Your task to perform on an android device: delete a single message in the gmail app Image 0: 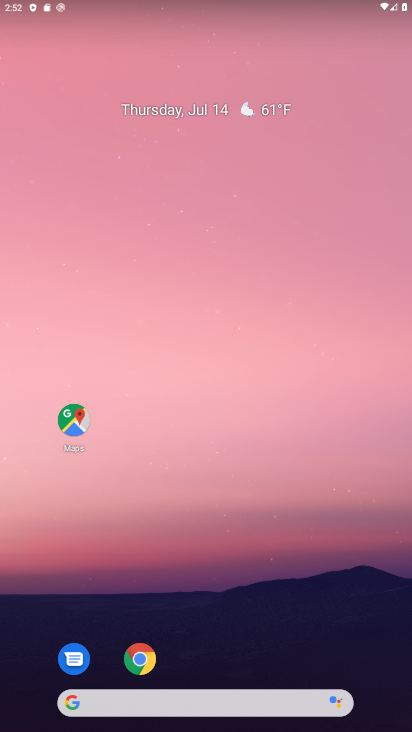
Step 0: drag from (217, 705) to (225, 104)
Your task to perform on an android device: delete a single message in the gmail app Image 1: 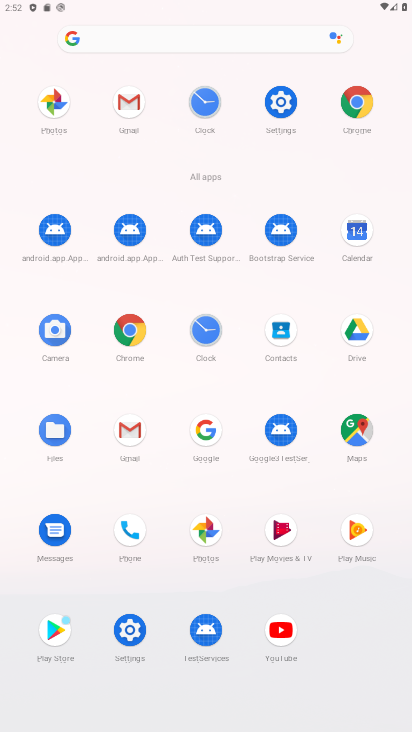
Step 1: click (127, 100)
Your task to perform on an android device: delete a single message in the gmail app Image 2: 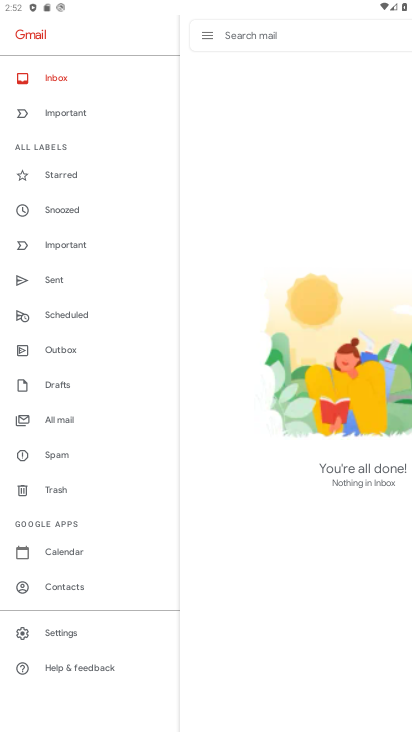
Step 2: click (62, 415)
Your task to perform on an android device: delete a single message in the gmail app Image 3: 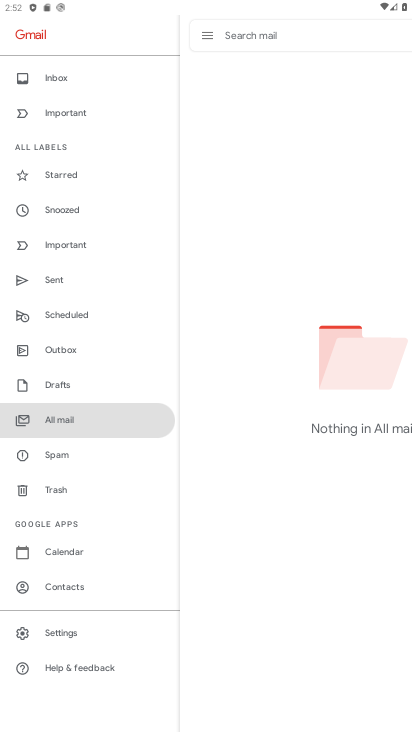
Step 3: click (80, 117)
Your task to perform on an android device: delete a single message in the gmail app Image 4: 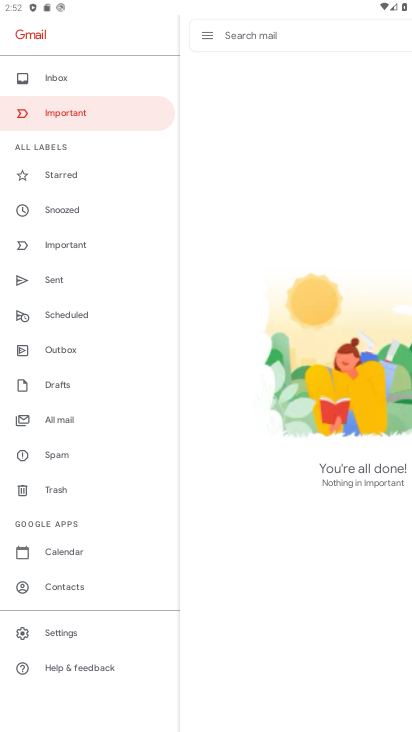
Step 4: click (61, 209)
Your task to perform on an android device: delete a single message in the gmail app Image 5: 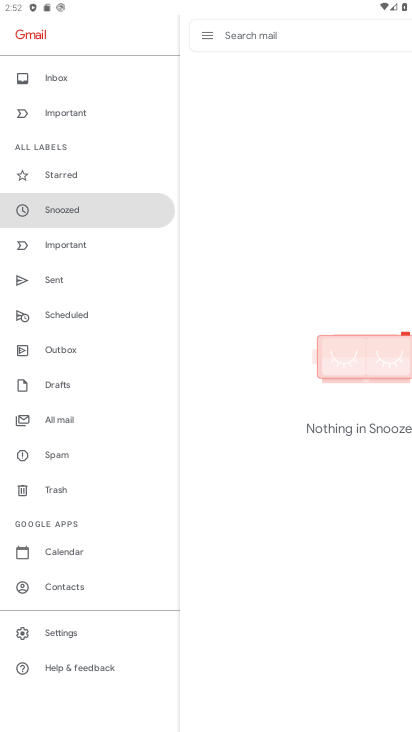
Step 5: click (62, 245)
Your task to perform on an android device: delete a single message in the gmail app Image 6: 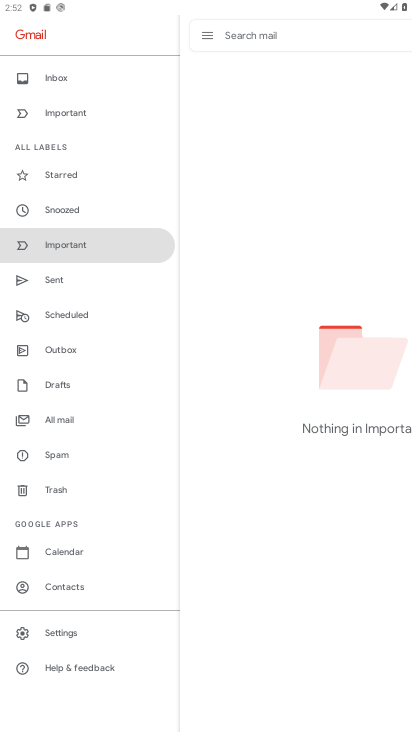
Step 6: click (58, 277)
Your task to perform on an android device: delete a single message in the gmail app Image 7: 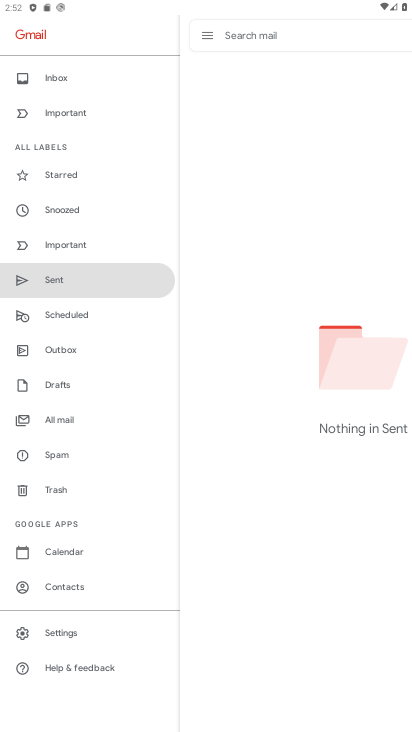
Step 7: click (93, 314)
Your task to perform on an android device: delete a single message in the gmail app Image 8: 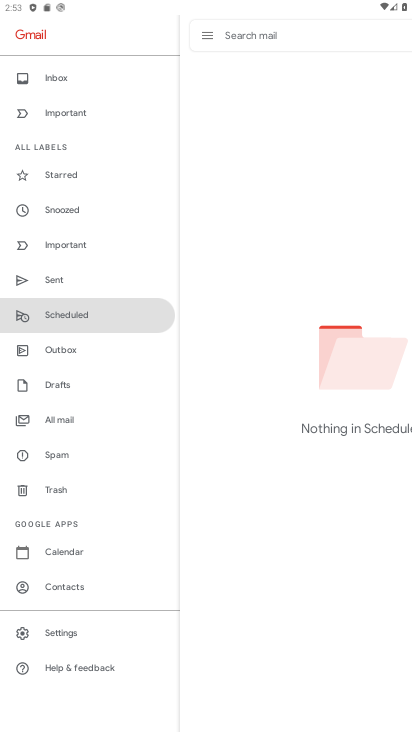
Step 8: click (59, 345)
Your task to perform on an android device: delete a single message in the gmail app Image 9: 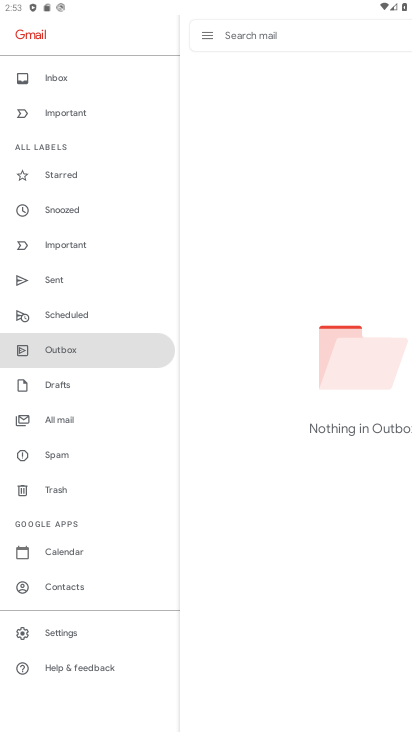
Step 9: click (57, 393)
Your task to perform on an android device: delete a single message in the gmail app Image 10: 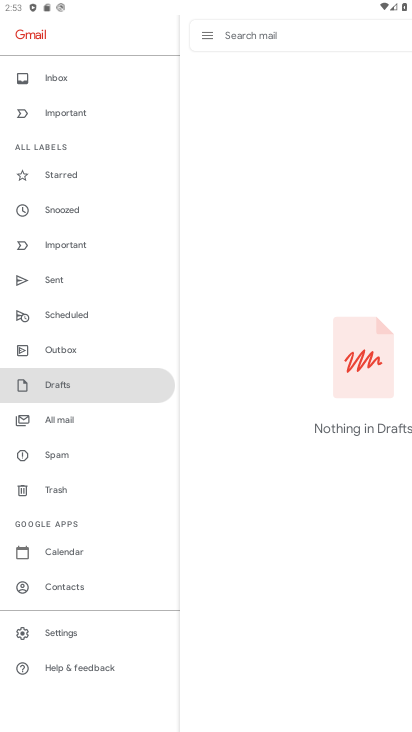
Step 10: click (50, 452)
Your task to perform on an android device: delete a single message in the gmail app Image 11: 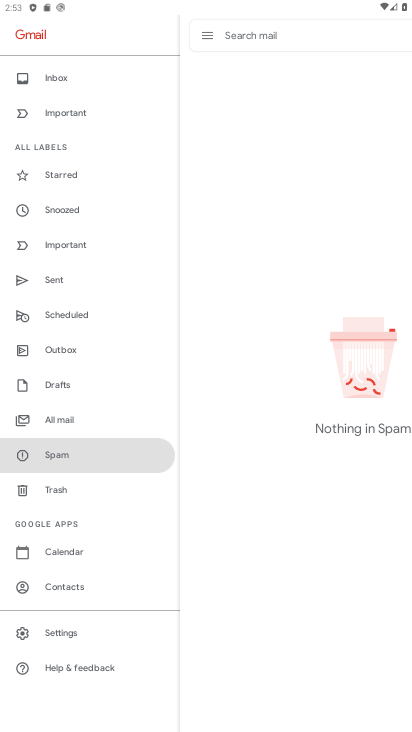
Step 11: click (53, 489)
Your task to perform on an android device: delete a single message in the gmail app Image 12: 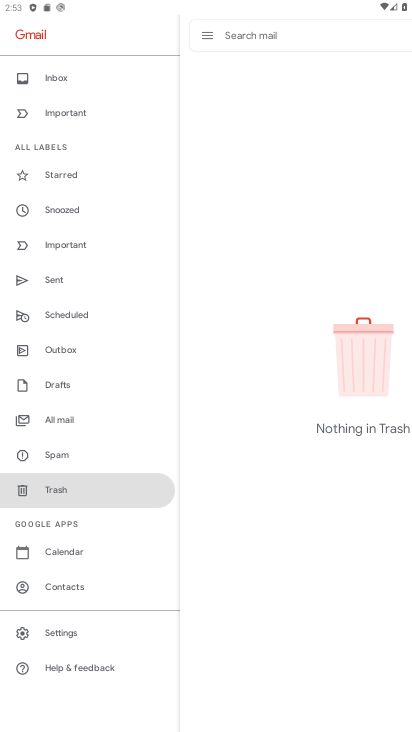
Step 12: task complete